Your task to perform on an android device: turn on notifications settings in the gmail app Image 0: 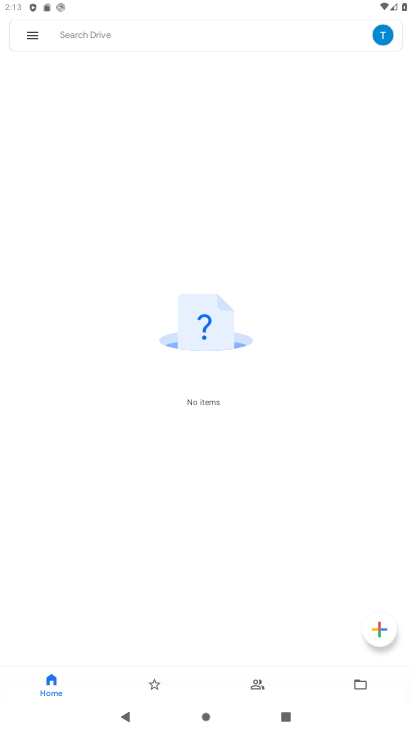
Step 0: press home button
Your task to perform on an android device: turn on notifications settings in the gmail app Image 1: 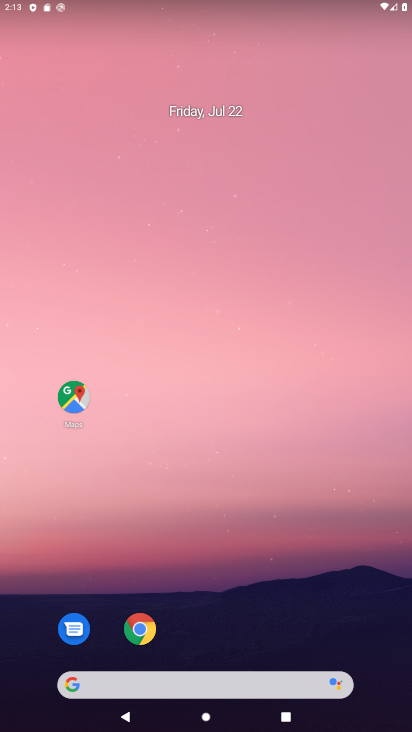
Step 1: drag from (203, 693) to (185, 135)
Your task to perform on an android device: turn on notifications settings in the gmail app Image 2: 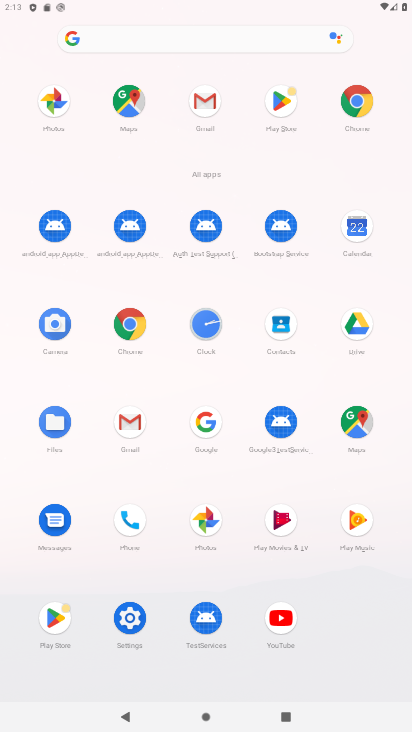
Step 2: click (139, 421)
Your task to perform on an android device: turn on notifications settings in the gmail app Image 3: 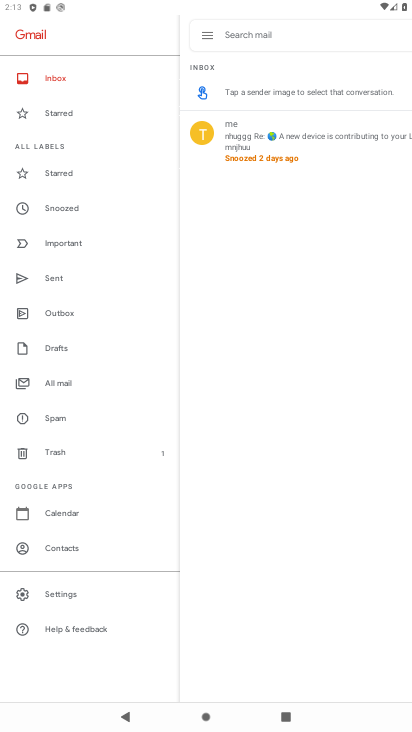
Step 3: click (55, 588)
Your task to perform on an android device: turn on notifications settings in the gmail app Image 4: 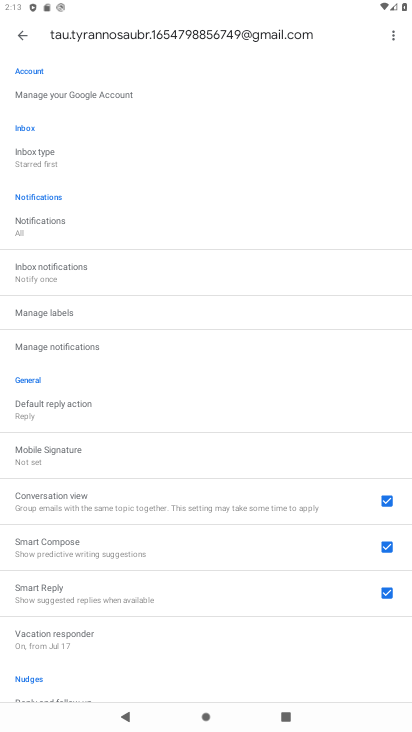
Step 4: click (73, 355)
Your task to perform on an android device: turn on notifications settings in the gmail app Image 5: 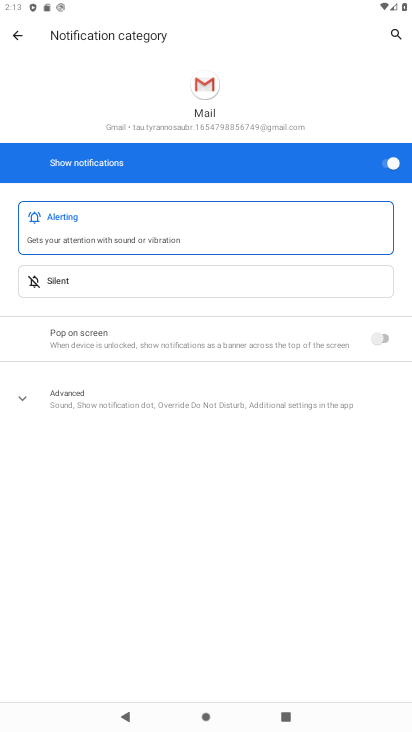
Step 5: task complete